Your task to perform on an android device: open a new tab in the chrome app Image 0: 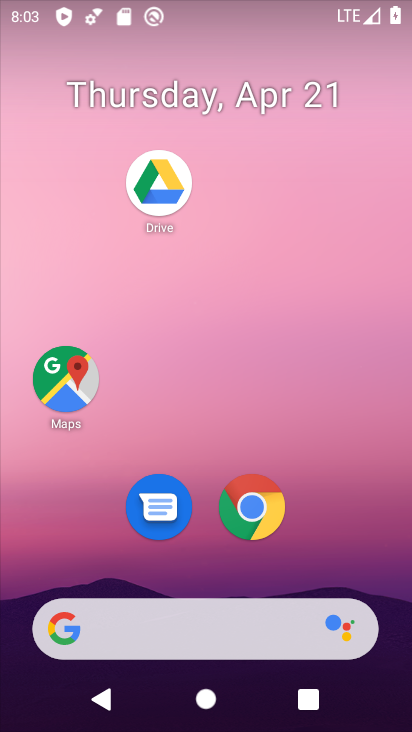
Step 0: drag from (369, 535) to (361, 90)
Your task to perform on an android device: open a new tab in the chrome app Image 1: 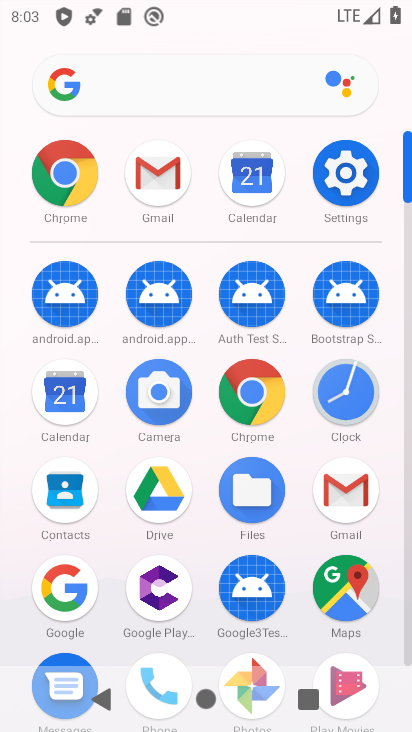
Step 1: click (274, 416)
Your task to perform on an android device: open a new tab in the chrome app Image 2: 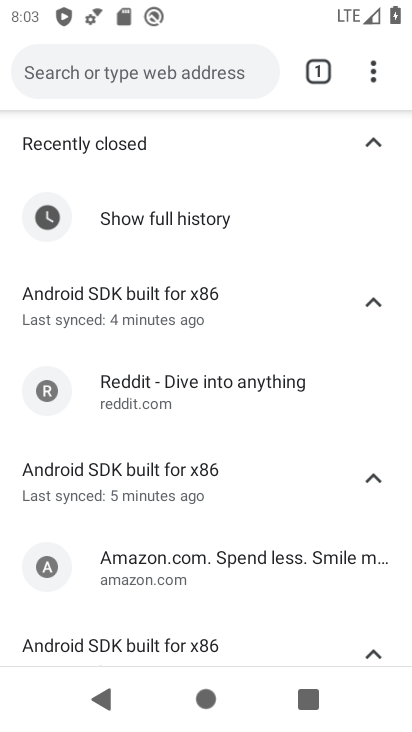
Step 2: click (374, 78)
Your task to perform on an android device: open a new tab in the chrome app Image 3: 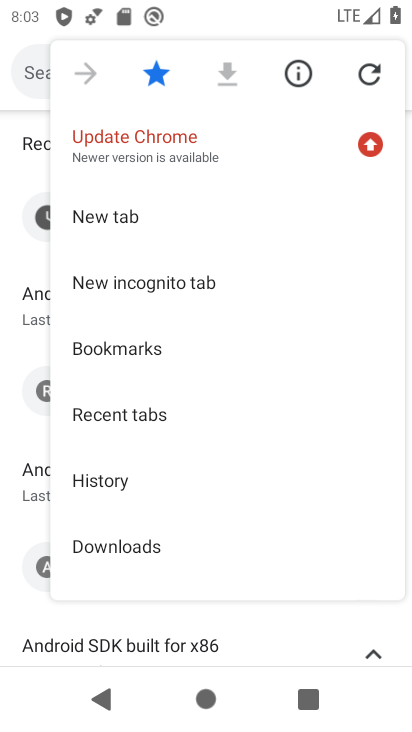
Step 3: click (127, 218)
Your task to perform on an android device: open a new tab in the chrome app Image 4: 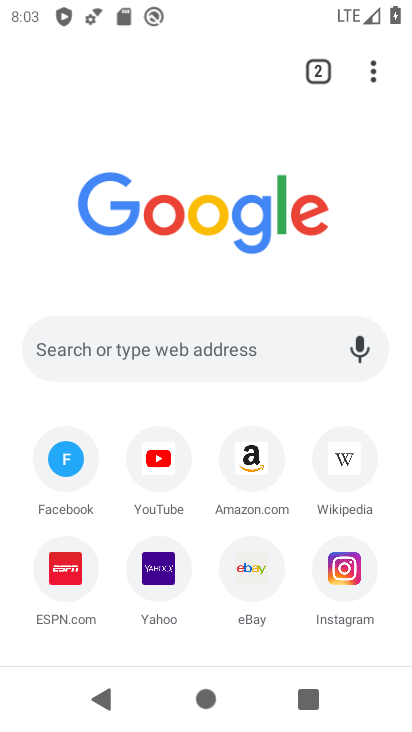
Step 4: task complete